Your task to perform on an android device: Play the last video I watched on Youtube Image 0: 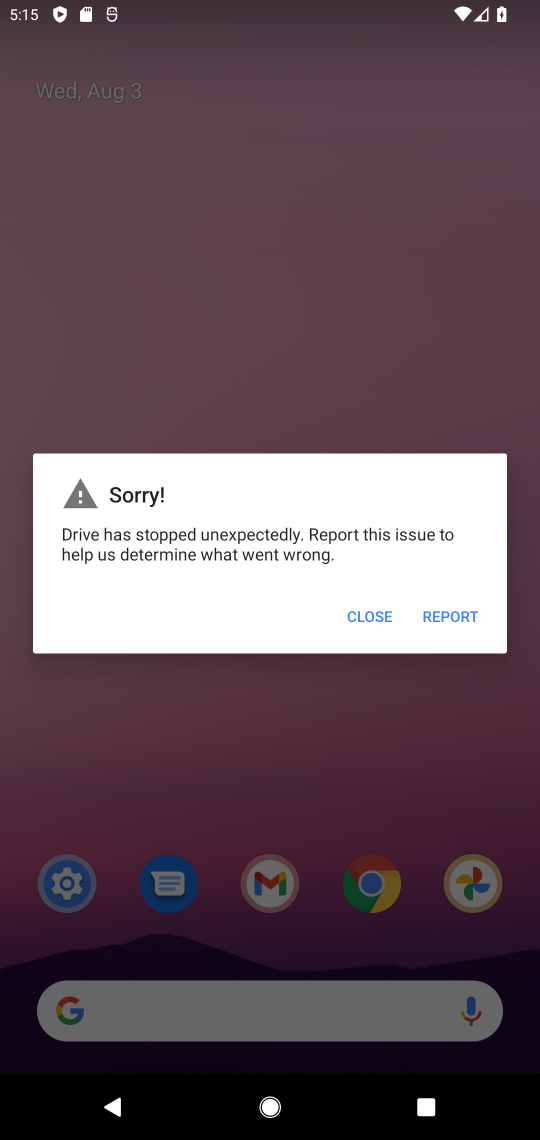
Step 0: click (361, 626)
Your task to perform on an android device: Play the last video I watched on Youtube Image 1: 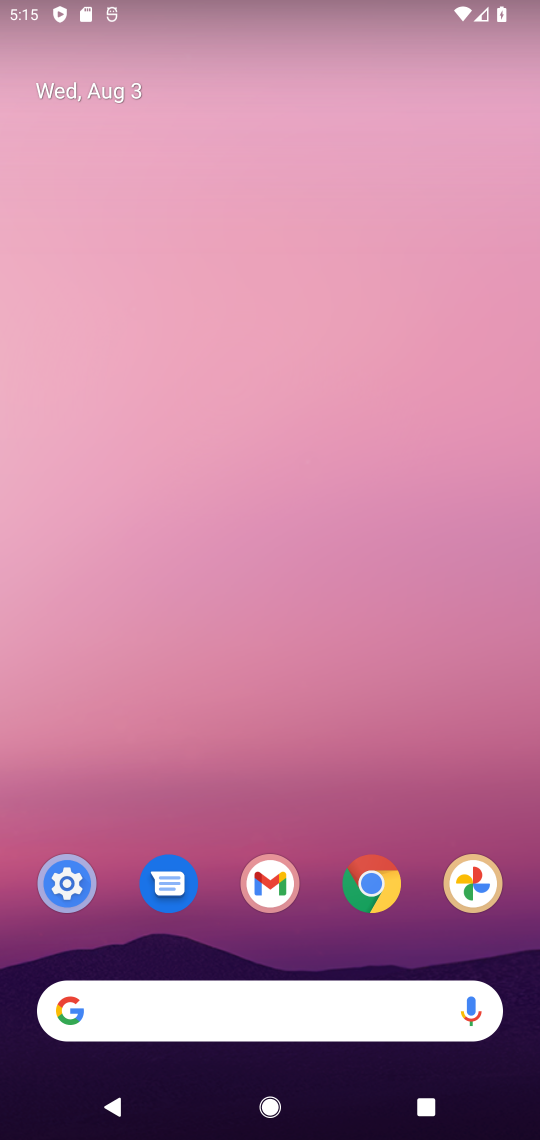
Step 1: drag from (243, 989) to (225, 222)
Your task to perform on an android device: Play the last video I watched on Youtube Image 2: 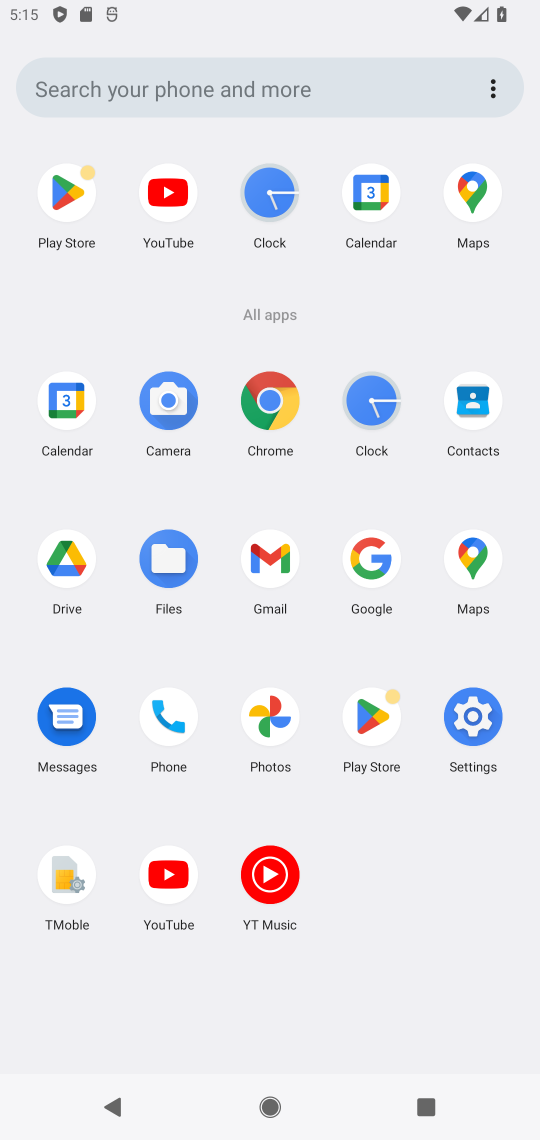
Step 2: click (175, 883)
Your task to perform on an android device: Play the last video I watched on Youtube Image 3: 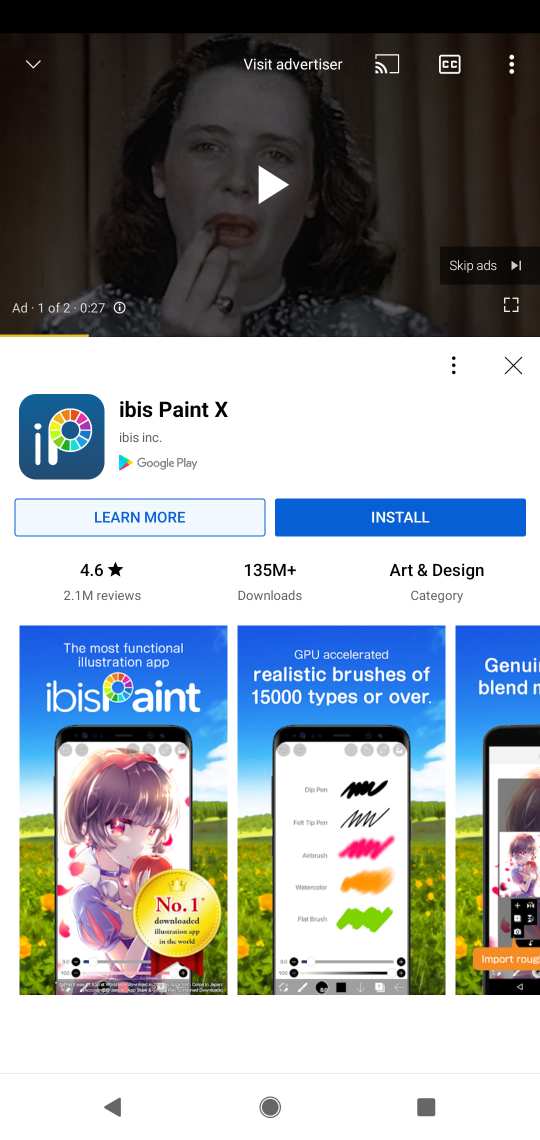
Step 3: click (512, 371)
Your task to perform on an android device: Play the last video I watched on Youtube Image 4: 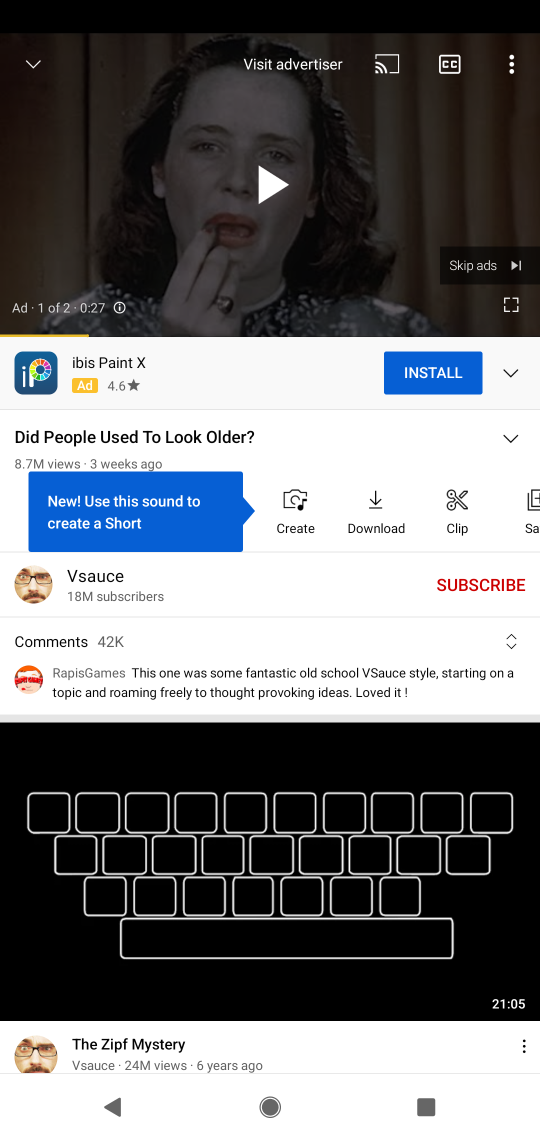
Step 4: click (243, 195)
Your task to perform on an android device: Play the last video I watched on Youtube Image 5: 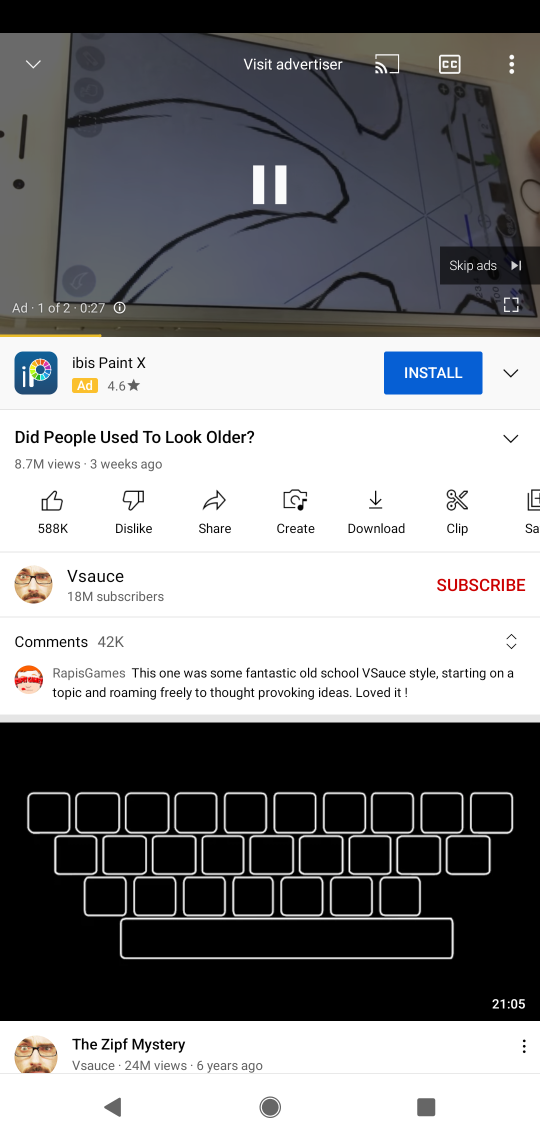
Step 5: task complete